Your task to perform on an android device: Open accessibility settings Image 0: 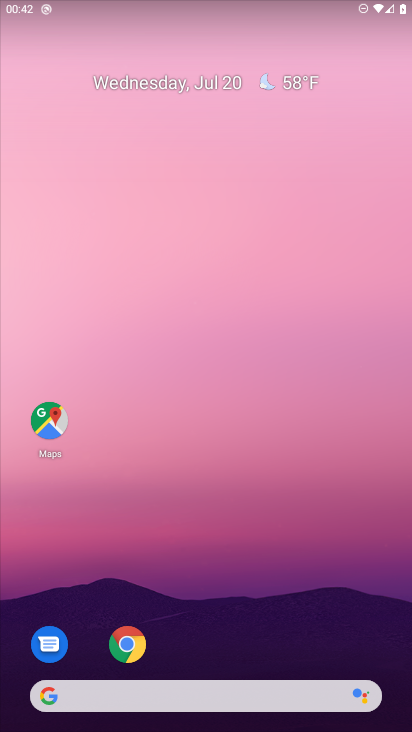
Step 0: drag from (102, 522) to (255, 66)
Your task to perform on an android device: Open accessibility settings Image 1: 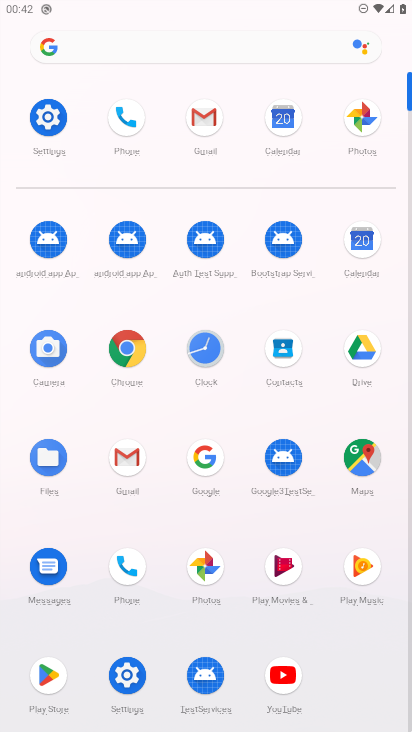
Step 1: click (137, 678)
Your task to perform on an android device: Open accessibility settings Image 2: 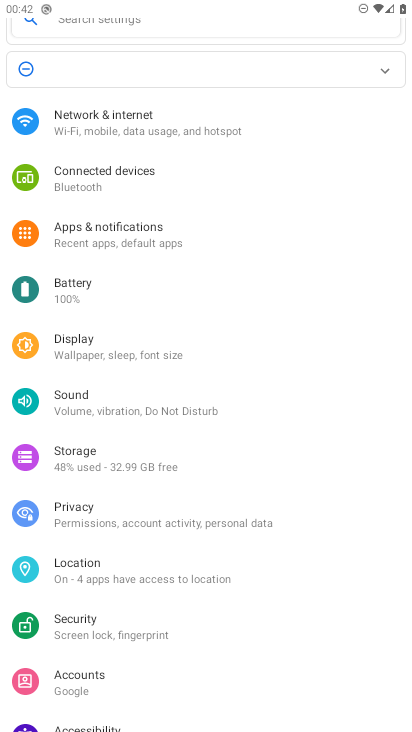
Step 2: drag from (239, 694) to (338, 346)
Your task to perform on an android device: Open accessibility settings Image 3: 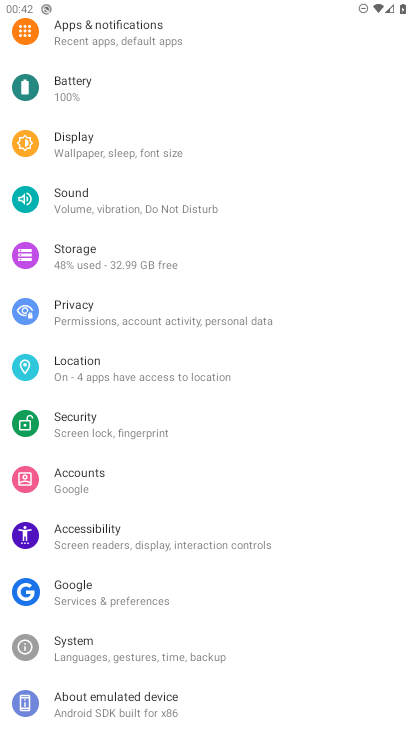
Step 3: click (121, 537)
Your task to perform on an android device: Open accessibility settings Image 4: 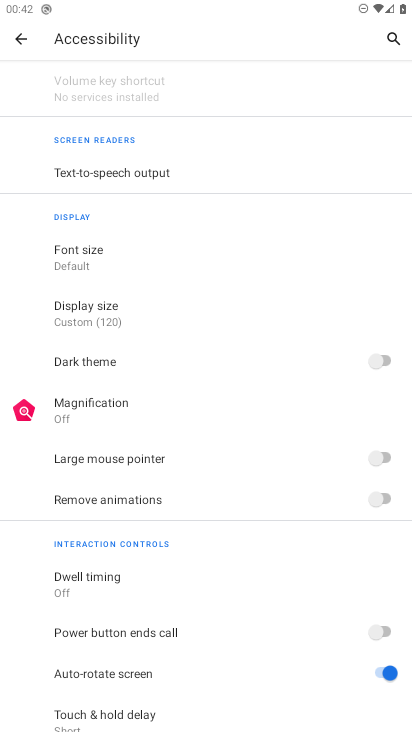
Step 4: task complete